Your task to perform on an android device: open sync settings in chrome Image 0: 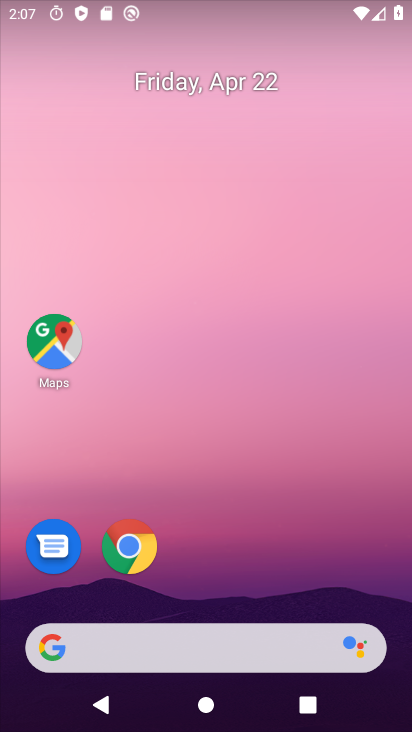
Step 0: click (217, 0)
Your task to perform on an android device: open sync settings in chrome Image 1: 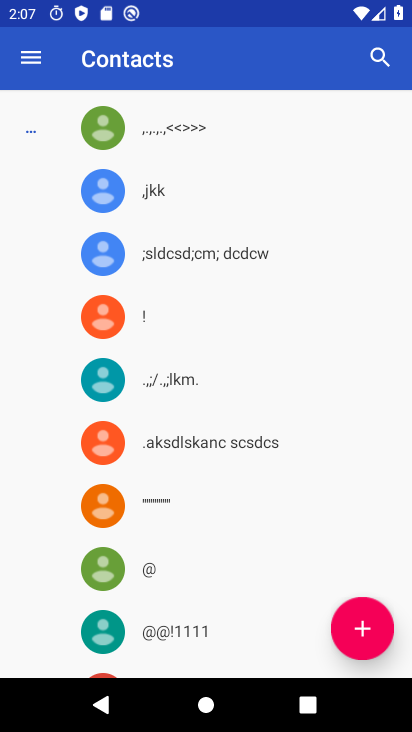
Step 1: press home button
Your task to perform on an android device: open sync settings in chrome Image 2: 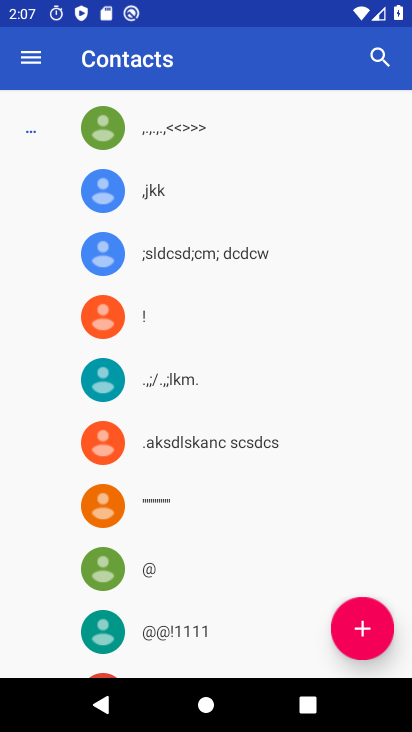
Step 2: press home button
Your task to perform on an android device: open sync settings in chrome Image 3: 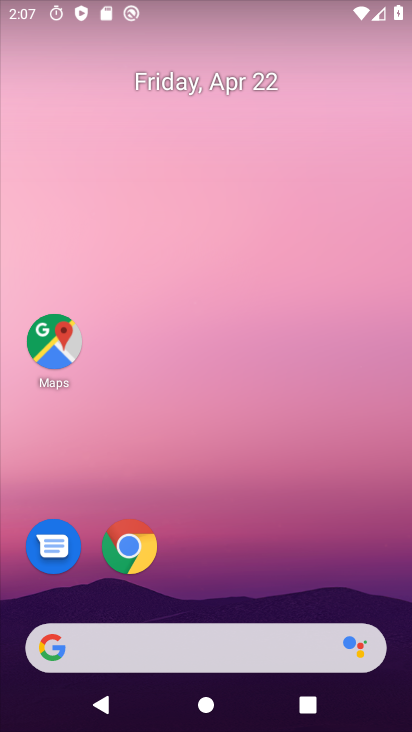
Step 3: drag from (227, 641) to (268, 175)
Your task to perform on an android device: open sync settings in chrome Image 4: 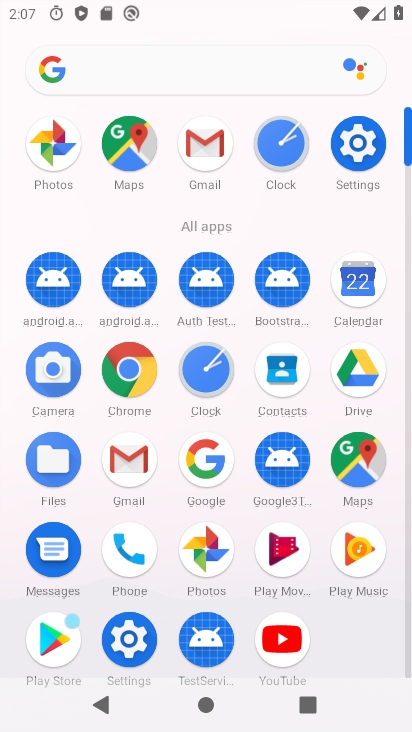
Step 4: click (122, 354)
Your task to perform on an android device: open sync settings in chrome Image 5: 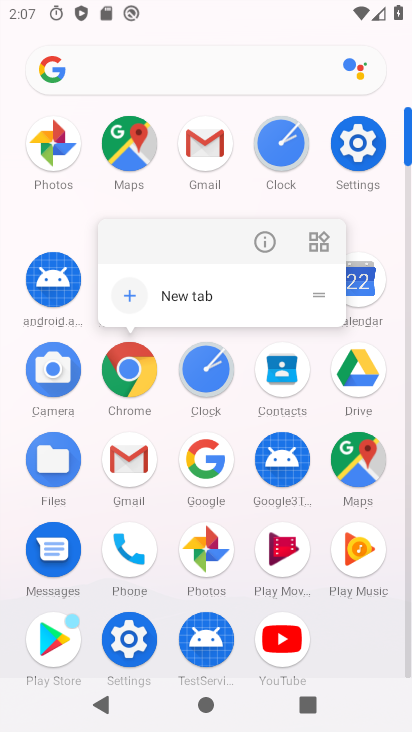
Step 5: click (262, 242)
Your task to perform on an android device: open sync settings in chrome Image 6: 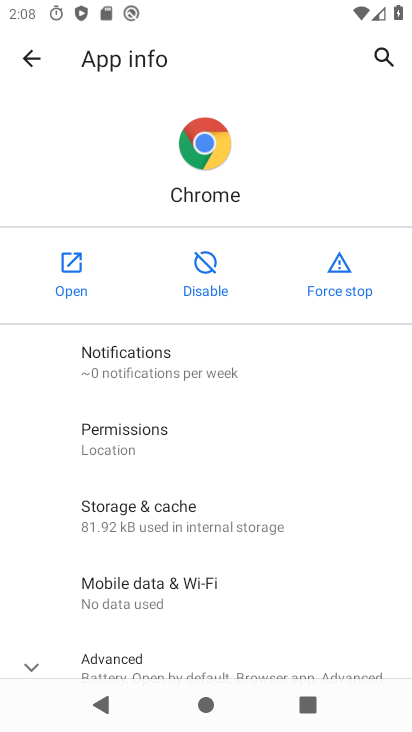
Step 6: click (68, 278)
Your task to perform on an android device: open sync settings in chrome Image 7: 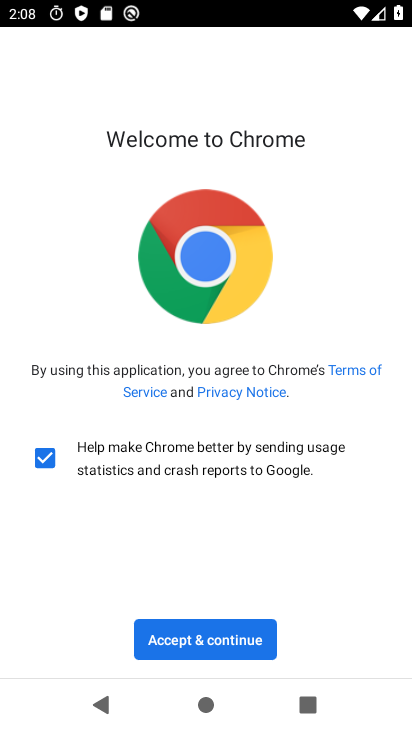
Step 7: click (199, 628)
Your task to perform on an android device: open sync settings in chrome Image 8: 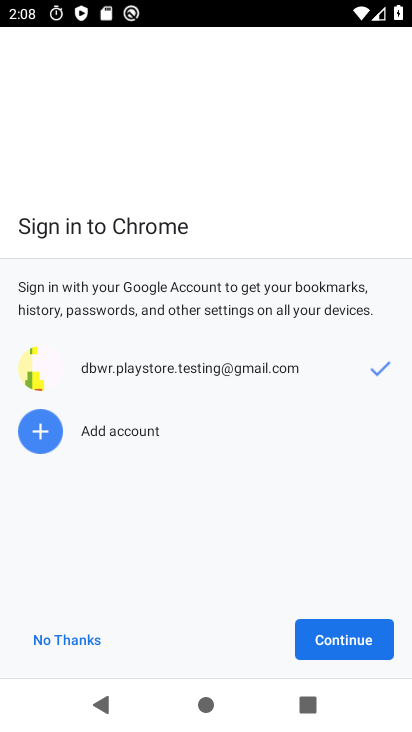
Step 8: click (347, 637)
Your task to perform on an android device: open sync settings in chrome Image 9: 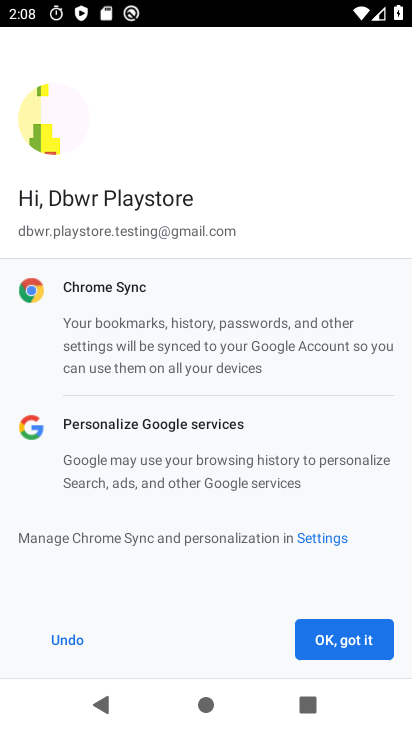
Step 9: click (336, 638)
Your task to perform on an android device: open sync settings in chrome Image 10: 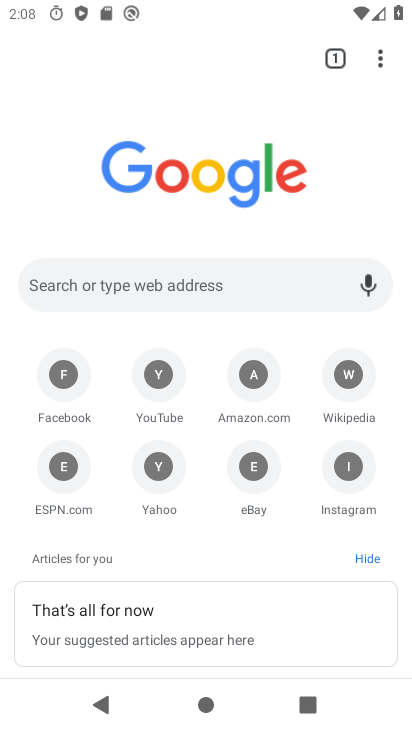
Step 10: drag from (375, 67) to (256, 469)
Your task to perform on an android device: open sync settings in chrome Image 11: 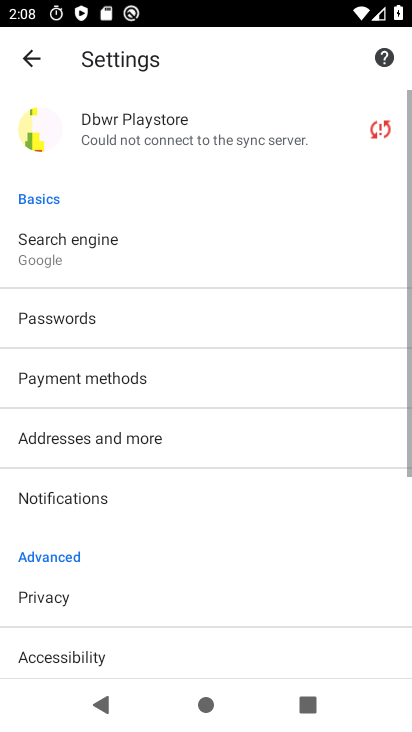
Step 11: drag from (140, 562) to (240, 160)
Your task to perform on an android device: open sync settings in chrome Image 12: 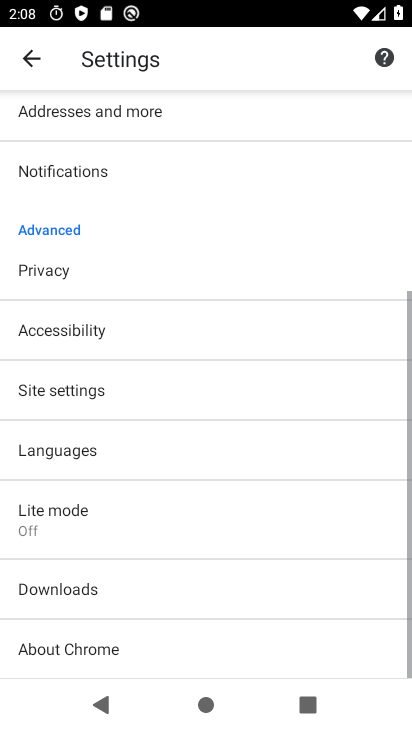
Step 12: click (100, 378)
Your task to perform on an android device: open sync settings in chrome Image 13: 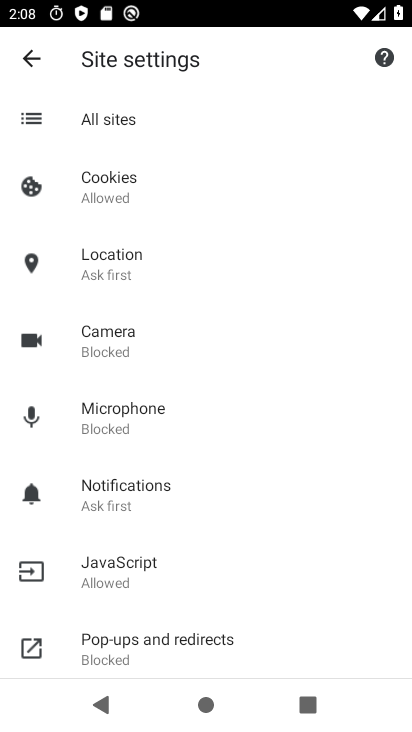
Step 13: drag from (187, 631) to (257, 307)
Your task to perform on an android device: open sync settings in chrome Image 14: 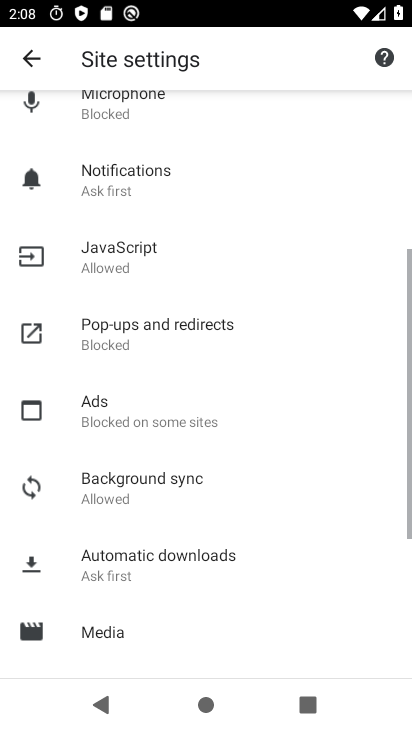
Step 14: click (148, 468)
Your task to perform on an android device: open sync settings in chrome Image 15: 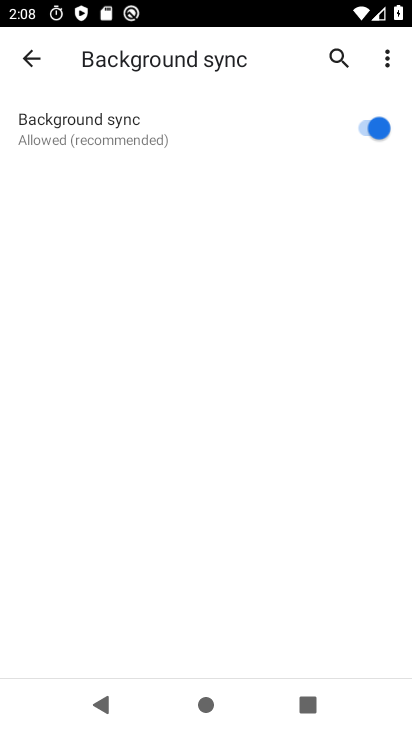
Step 15: task complete